Your task to perform on an android device: Is it going to rain today? Image 0: 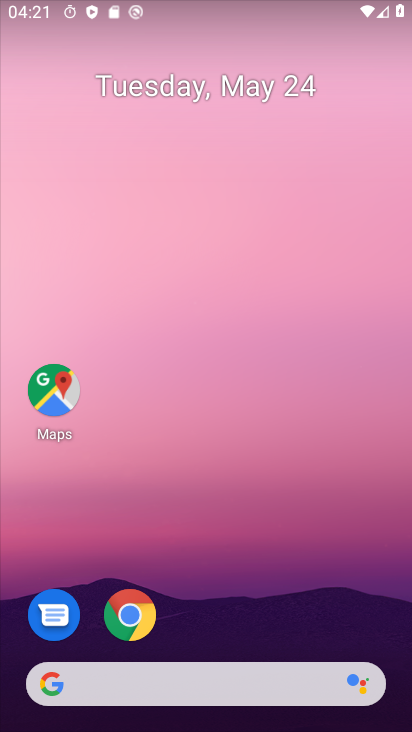
Step 0: click (190, 692)
Your task to perform on an android device: Is it going to rain today? Image 1: 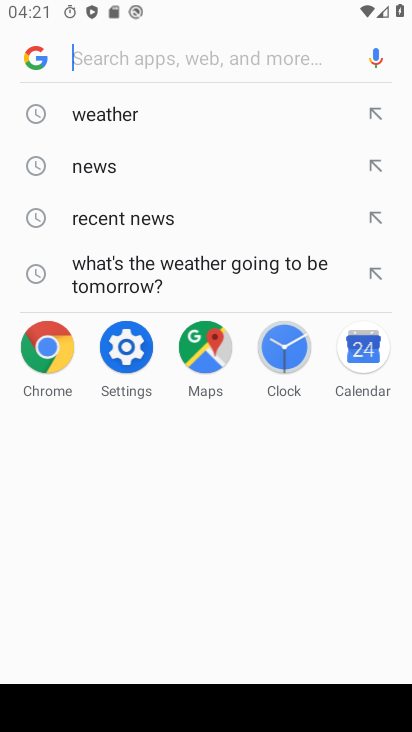
Step 1: click (122, 114)
Your task to perform on an android device: Is it going to rain today? Image 2: 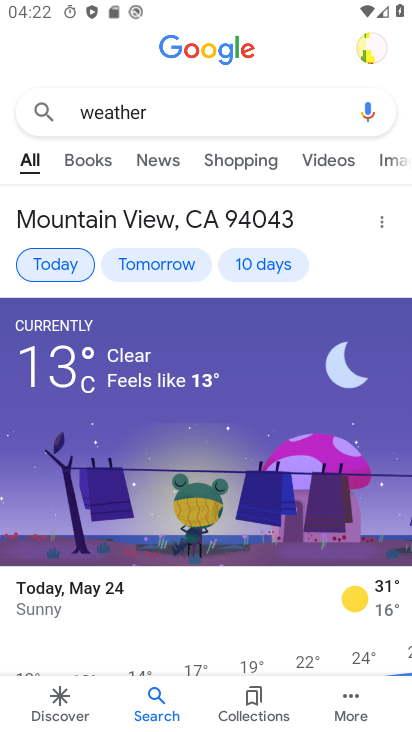
Step 2: task complete